Your task to perform on an android device: toggle sleep mode Image 0: 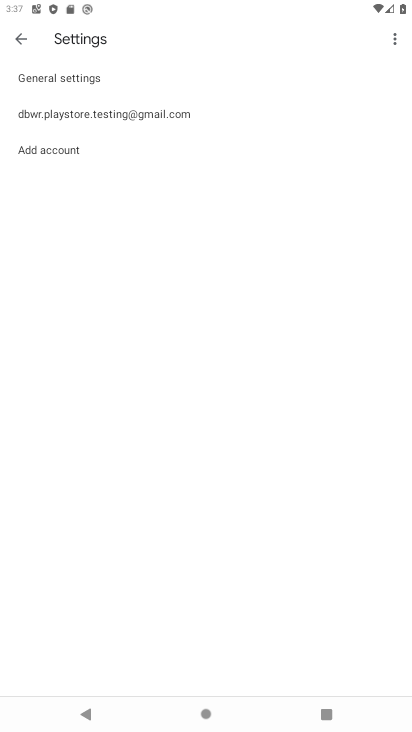
Step 0: press home button
Your task to perform on an android device: toggle sleep mode Image 1: 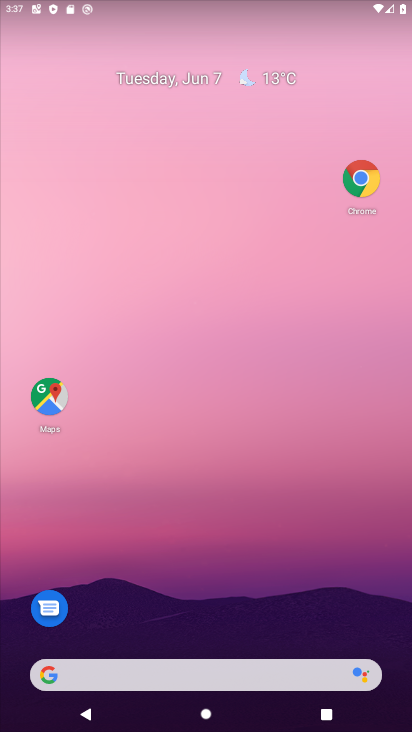
Step 1: drag from (117, 661) to (216, 126)
Your task to perform on an android device: toggle sleep mode Image 2: 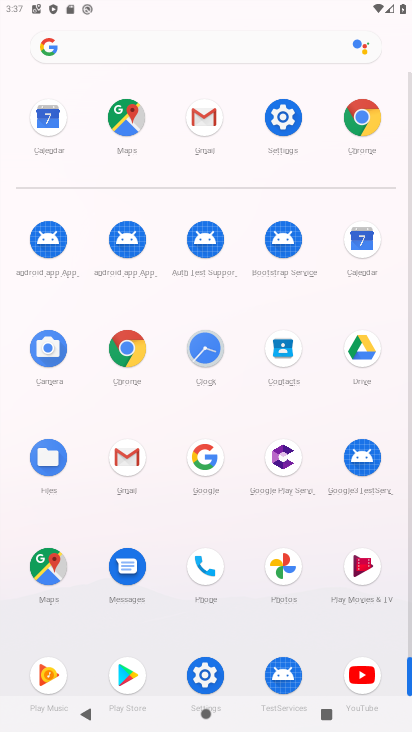
Step 2: drag from (123, 638) to (236, 272)
Your task to perform on an android device: toggle sleep mode Image 3: 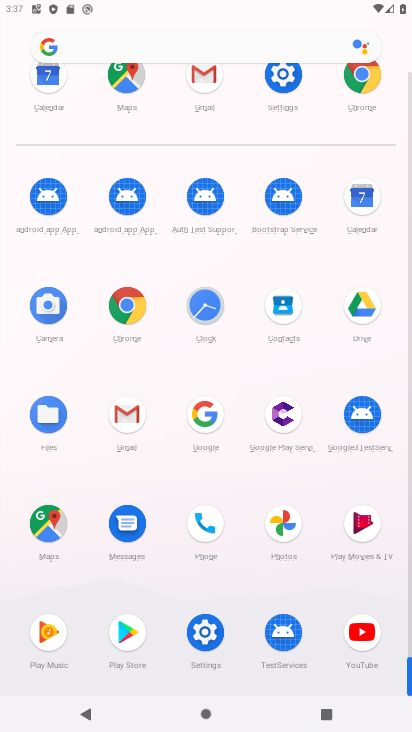
Step 3: click (190, 633)
Your task to perform on an android device: toggle sleep mode Image 4: 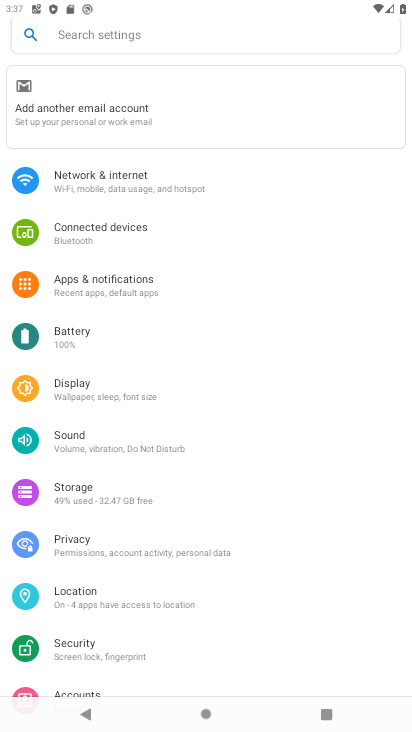
Step 4: click (109, 387)
Your task to perform on an android device: toggle sleep mode Image 5: 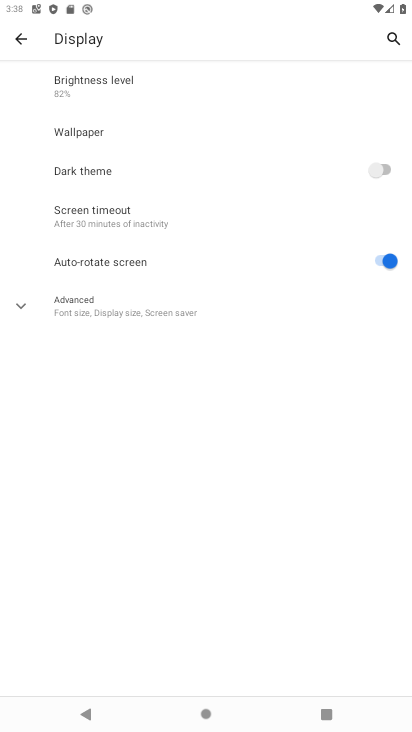
Step 5: click (168, 314)
Your task to perform on an android device: toggle sleep mode Image 6: 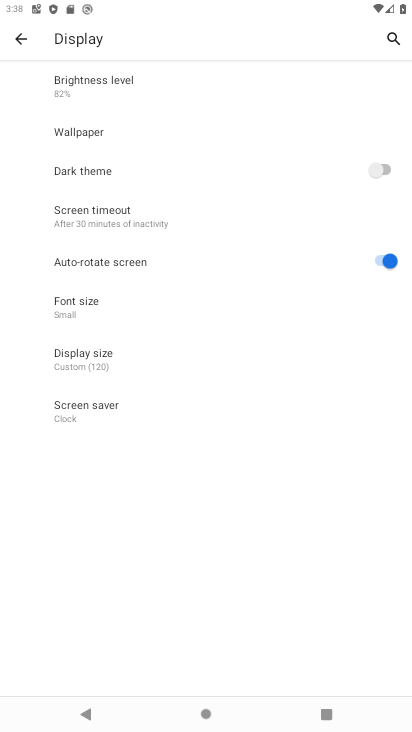
Step 6: task complete